Your task to perform on an android device: Open the Play Movies app and select the watchlist tab. Image 0: 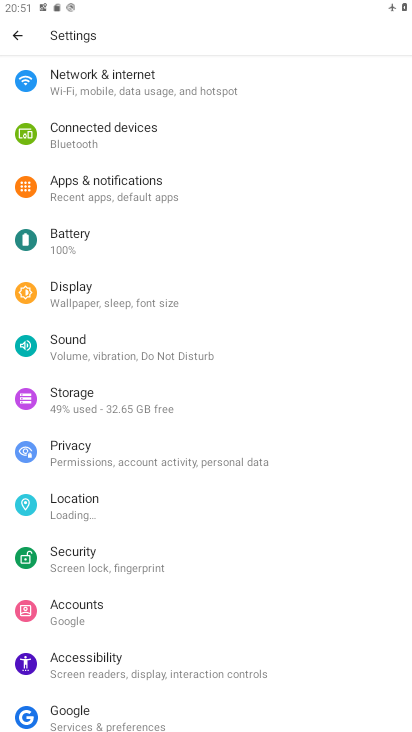
Step 0: click (23, 31)
Your task to perform on an android device: Open the Play Movies app and select the watchlist tab. Image 1: 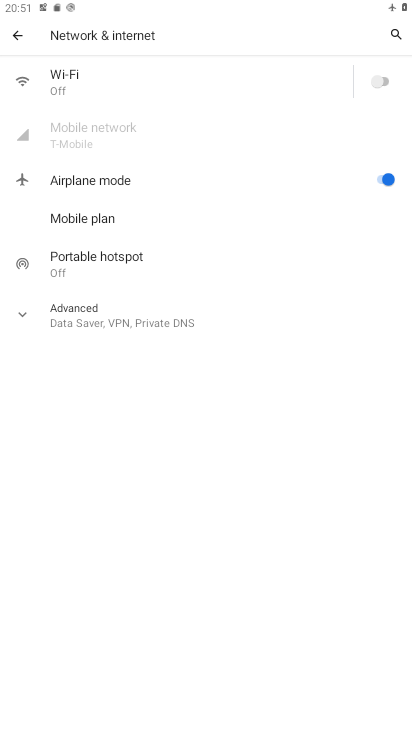
Step 1: click (8, 33)
Your task to perform on an android device: Open the Play Movies app and select the watchlist tab. Image 2: 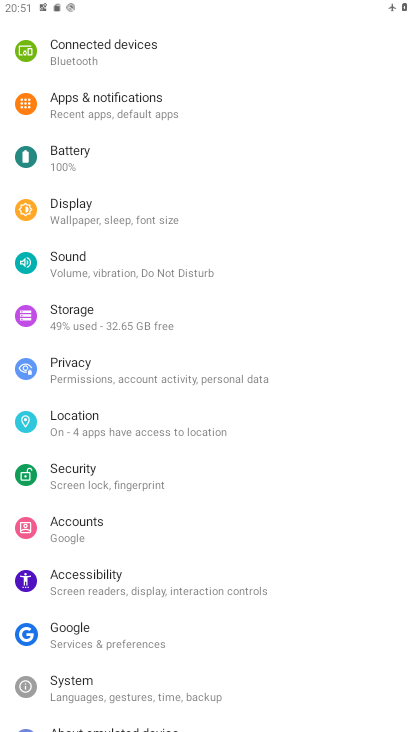
Step 2: press back button
Your task to perform on an android device: Open the Play Movies app and select the watchlist tab. Image 3: 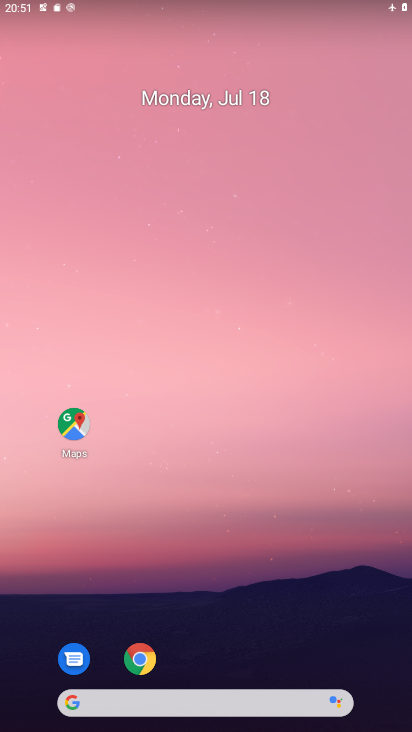
Step 3: drag from (231, 497) to (142, 24)
Your task to perform on an android device: Open the Play Movies app and select the watchlist tab. Image 4: 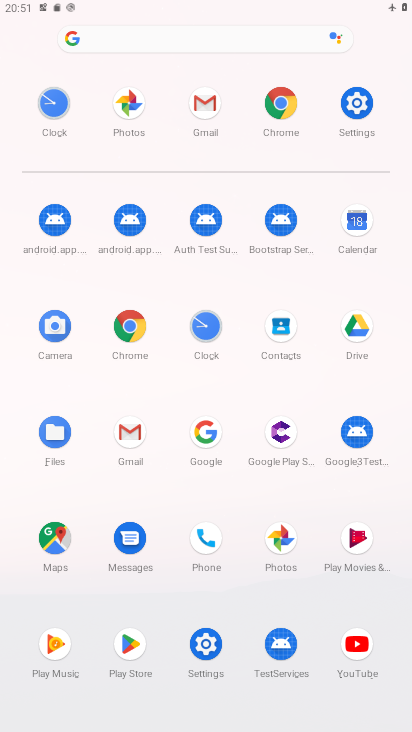
Step 4: click (352, 538)
Your task to perform on an android device: Open the Play Movies app and select the watchlist tab. Image 5: 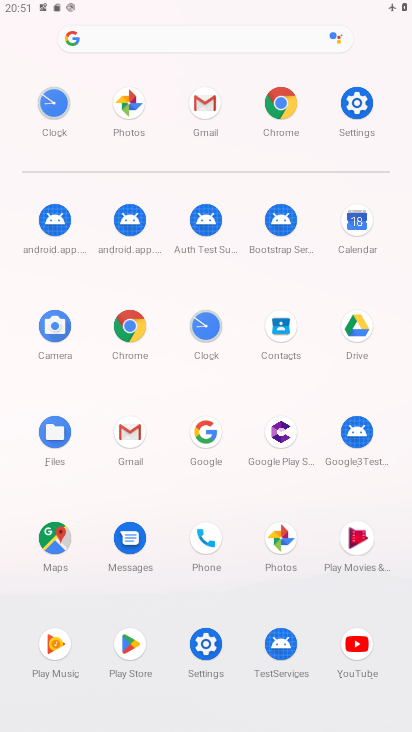
Step 5: click (354, 539)
Your task to perform on an android device: Open the Play Movies app and select the watchlist tab. Image 6: 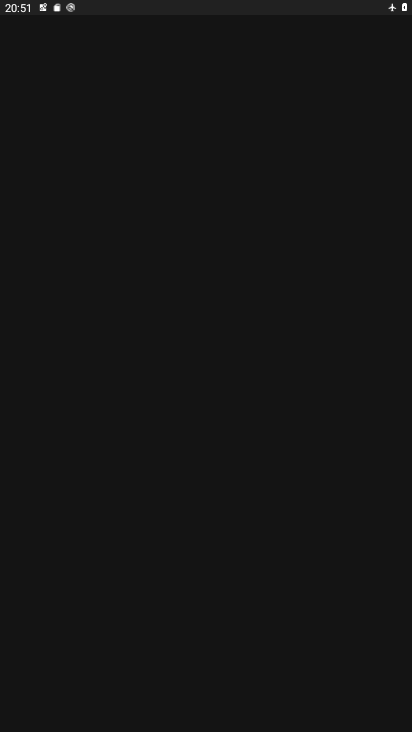
Step 6: click (355, 543)
Your task to perform on an android device: Open the Play Movies app and select the watchlist tab. Image 7: 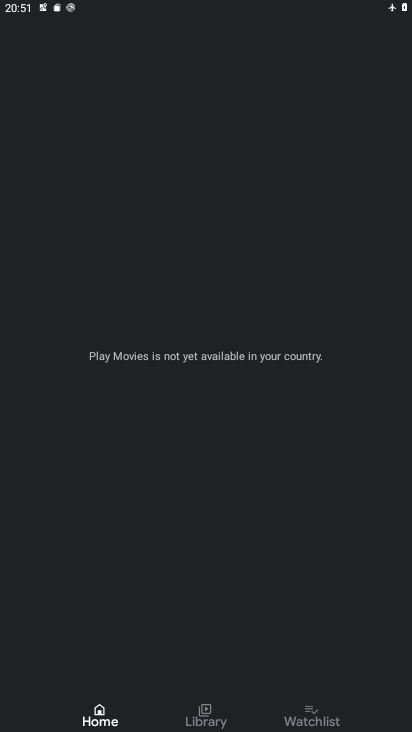
Step 7: click (315, 714)
Your task to perform on an android device: Open the Play Movies app and select the watchlist tab. Image 8: 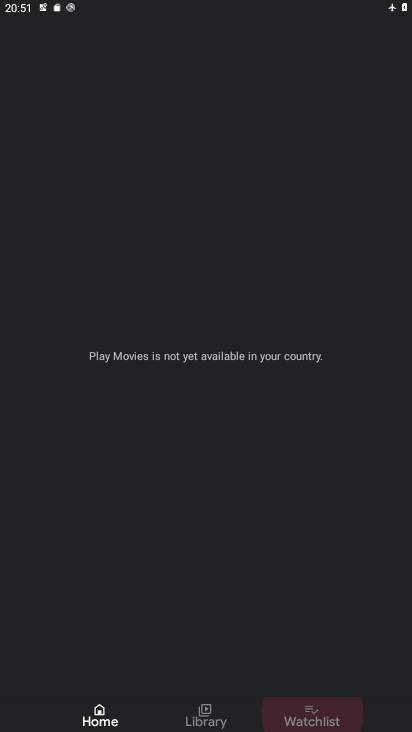
Step 8: click (314, 713)
Your task to perform on an android device: Open the Play Movies app and select the watchlist tab. Image 9: 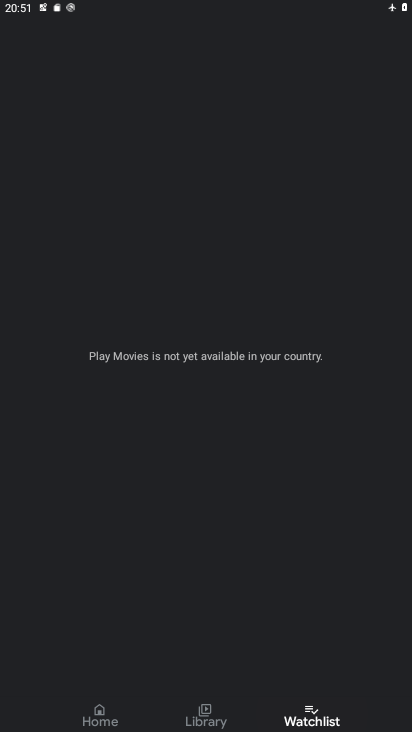
Step 9: click (314, 713)
Your task to perform on an android device: Open the Play Movies app and select the watchlist tab. Image 10: 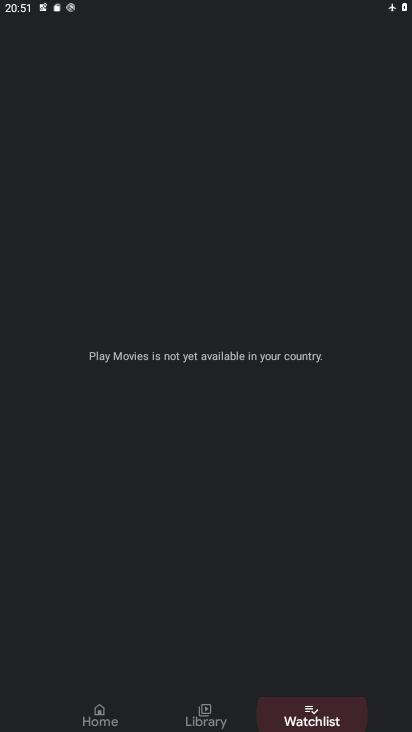
Step 10: click (314, 713)
Your task to perform on an android device: Open the Play Movies app and select the watchlist tab. Image 11: 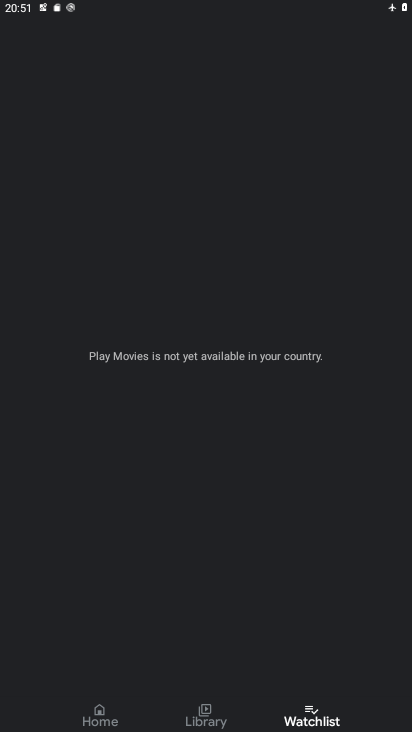
Step 11: task complete